Your task to perform on an android device: toggle improve location accuracy Image 0: 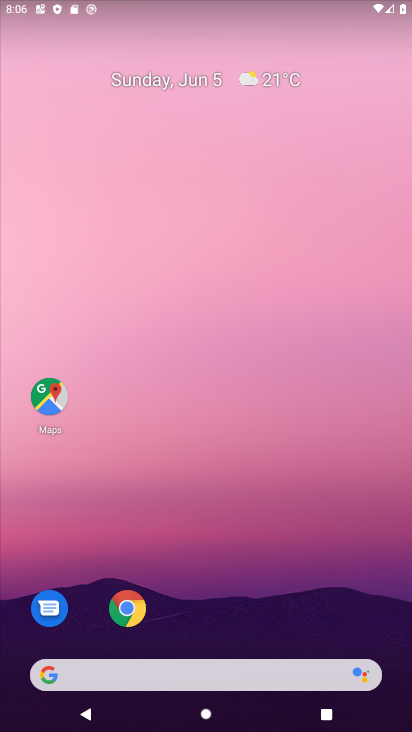
Step 0: drag from (321, 579) to (302, 184)
Your task to perform on an android device: toggle improve location accuracy Image 1: 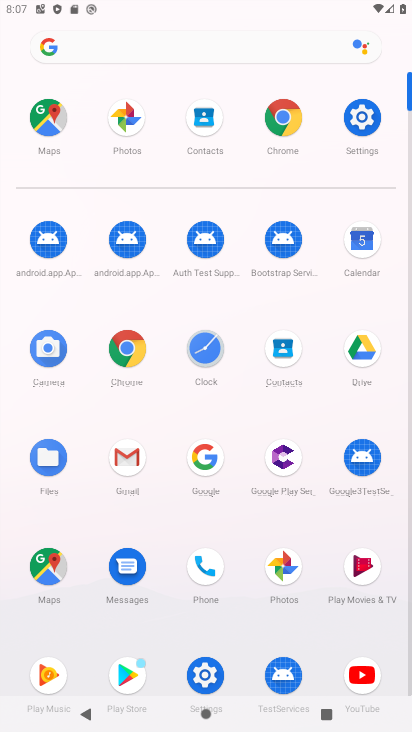
Step 1: click (208, 681)
Your task to perform on an android device: toggle improve location accuracy Image 2: 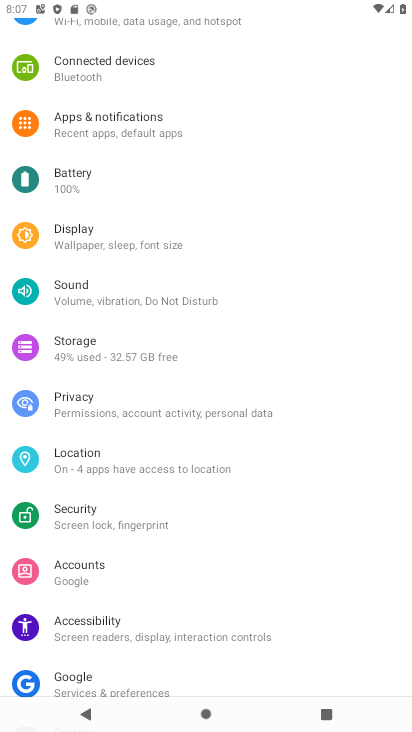
Step 2: click (175, 461)
Your task to perform on an android device: toggle improve location accuracy Image 3: 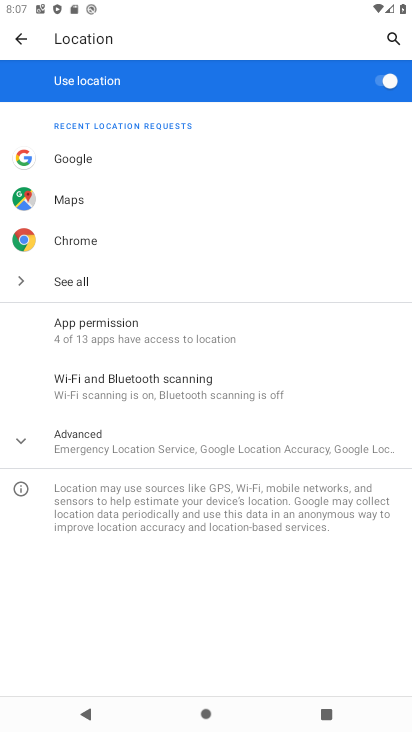
Step 3: click (205, 456)
Your task to perform on an android device: toggle improve location accuracy Image 4: 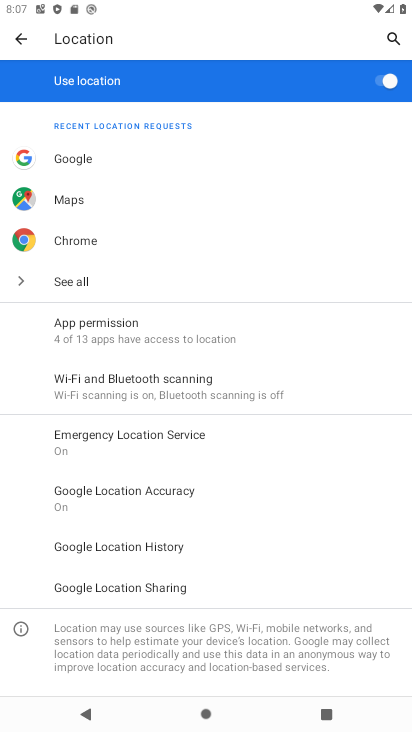
Step 4: click (174, 493)
Your task to perform on an android device: toggle improve location accuracy Image 5: 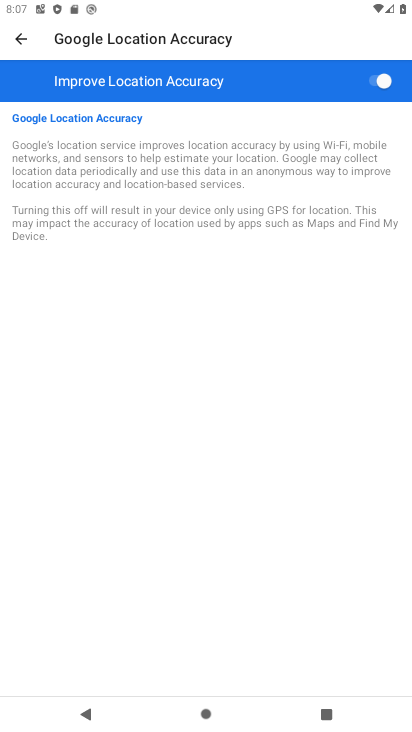
Step 5: click (376, 81)
Your task to perform on an android device: toggle improve location accuracy Image 6: 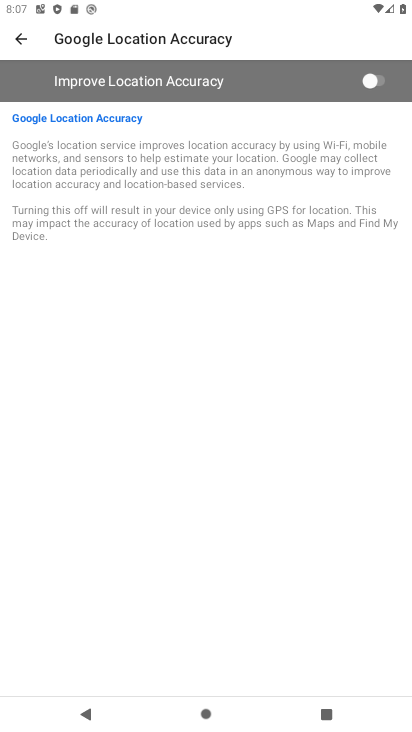
Step 6: task complete